Your task to perform on an android device: Is it going to rain tomorrow? Image 0: 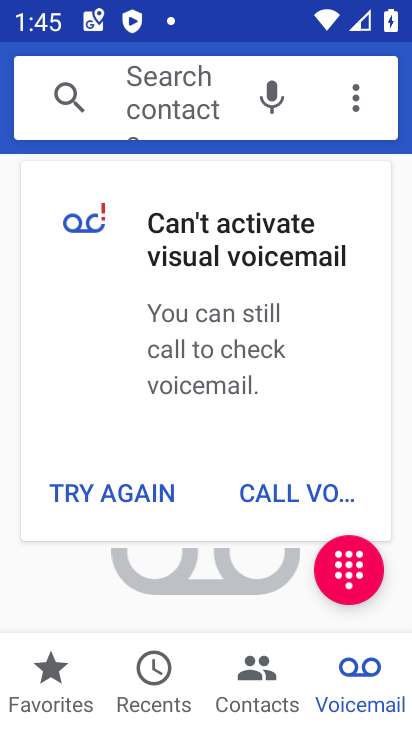
Step 0: press home button
Your task to perform on an android device: Is it going to rain tomorrow? Image 1: 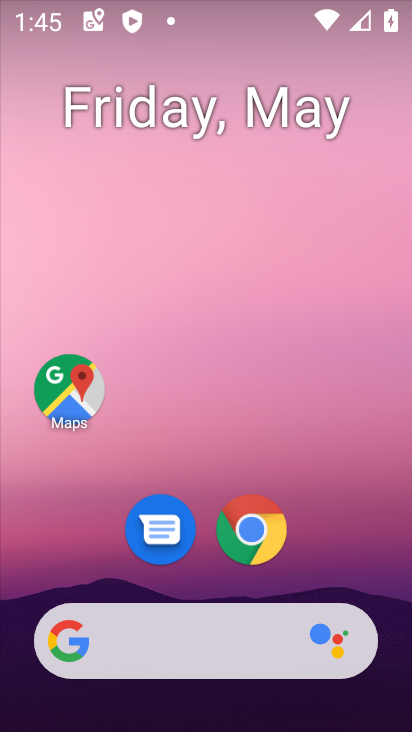
Step 1: drag from (351, 501) to (217, 17)
Your task to perform on an android device: Is it going to rain tomorrow? Image 2: 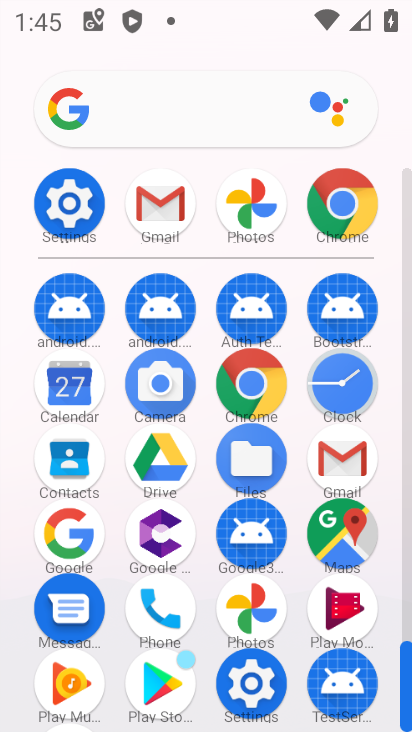
Step 2: click (133, 113)
Your task to perform on an android device: Is it going to rain tomorrow? Image 3: 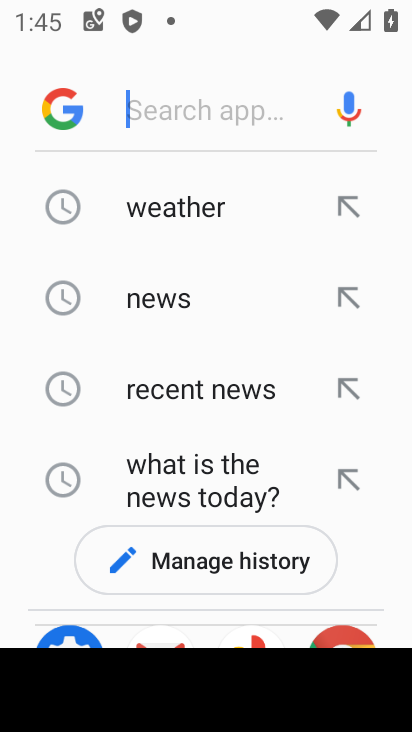
Step 3: click (167, 218)
Your task to perform on an android device: Is it going to rain tomorrow? Image 4: 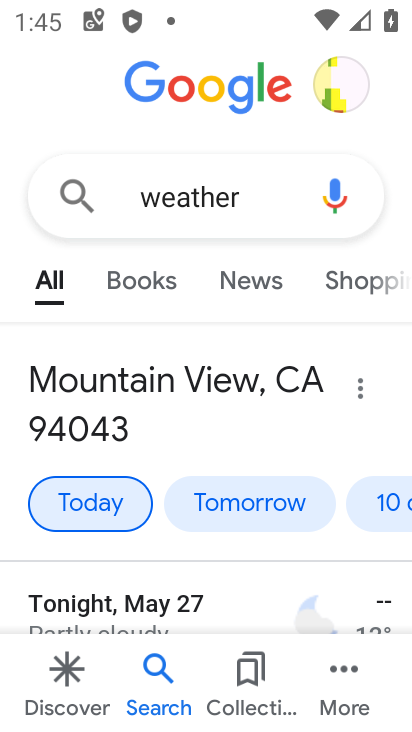
Step 4: task complete